Your task to perform on an android device: Do I have any events today? Image 0: 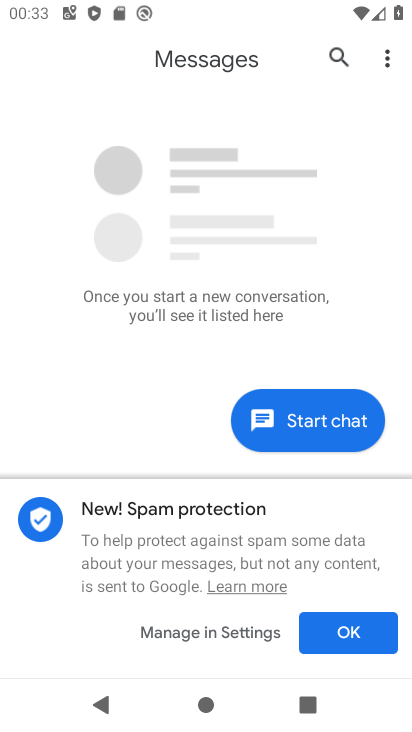
Step 0: press home button
Your task to perform on an android device: Do I have any events today? Image 1: 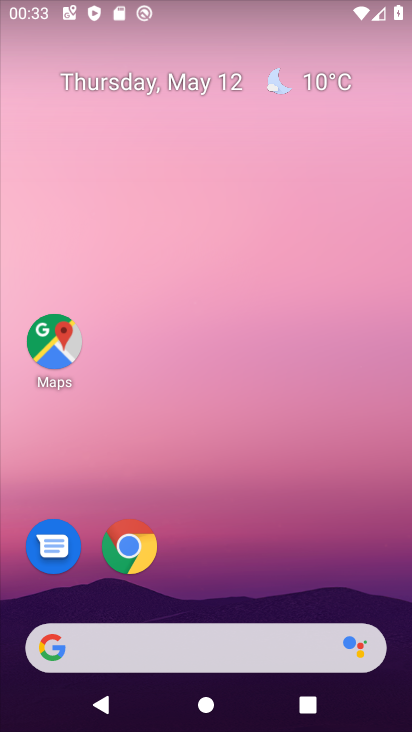
Step 1: drag from (160, 607) to (181, 163)
Your task to perform on an android device: Do I have any events today? Image 2: 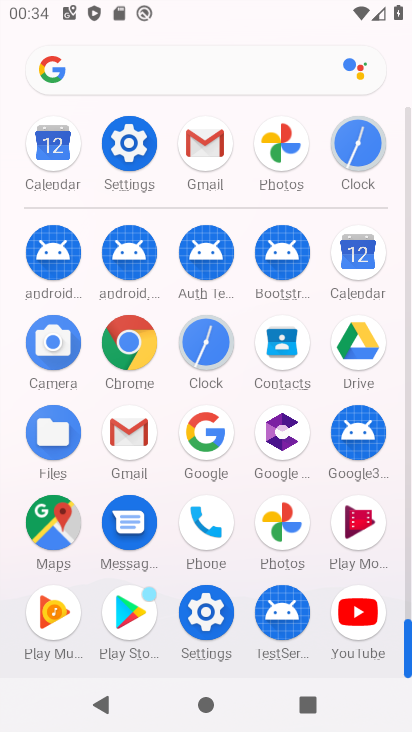
Step 2: click (368, 254)
Your task to perform on an android device: Do I have any events today? Image 3: 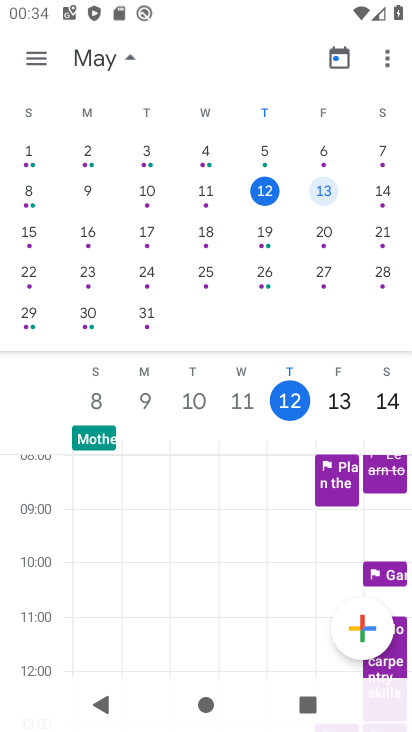
Step 3: task complete